Your task to perform on an android device: change the clock style Image 0: 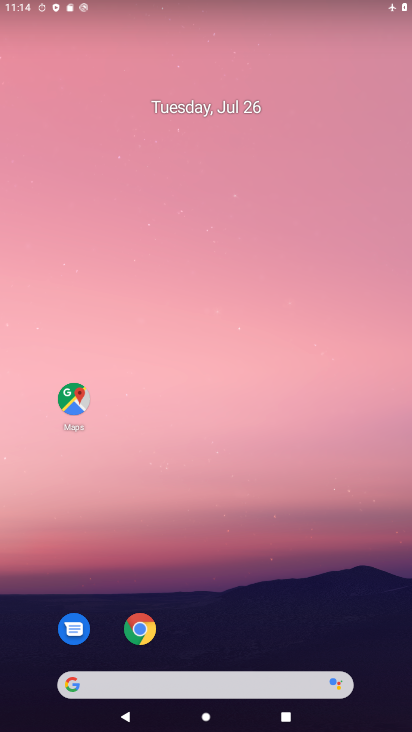
Step 0: drag from (358, 607) to (163, 50)
Your task to perform on an android device: change the clock style Image 1: 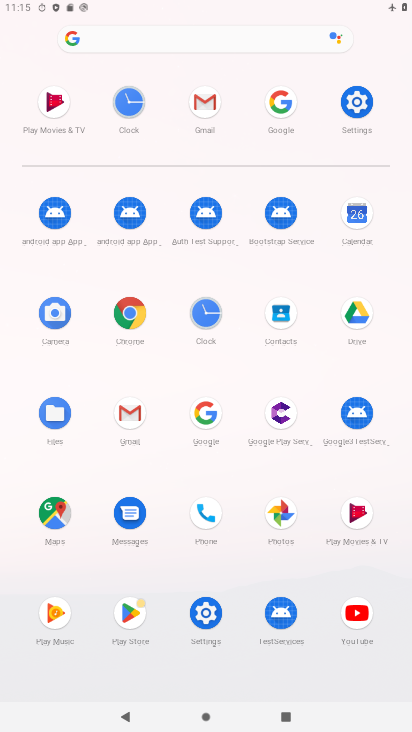
Step 1: click (202, 323)
Your task to perform on an android device: change the clock style Image 2: 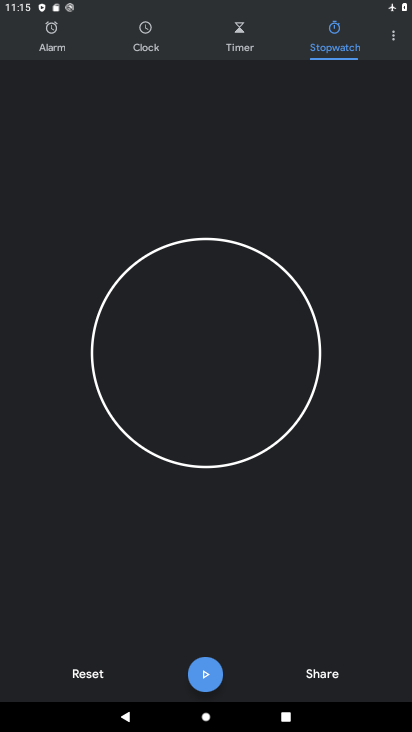
Step 2: click (391, 35)
Your task to perform on an android device: change the clock style Image 3: 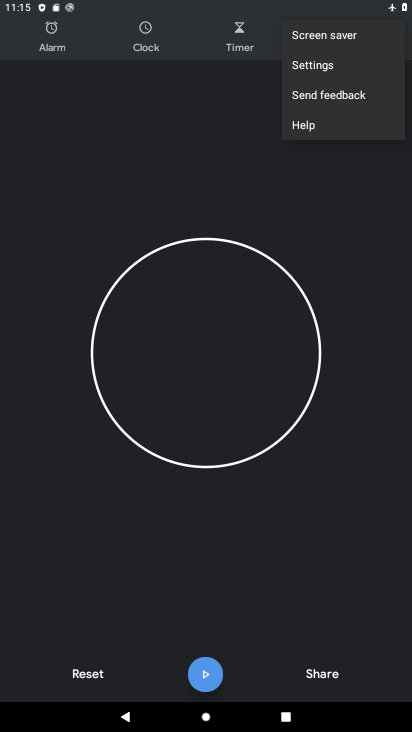
Step 3: click (301, 71)
Your task to perform on an android device: change the clock style Image 4: 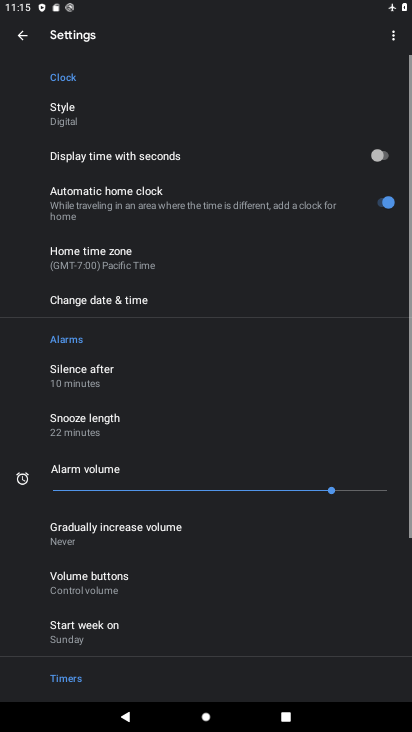
Step 4: click (65, 112)
Your task to perform on an android device: change the clock style Image 5: 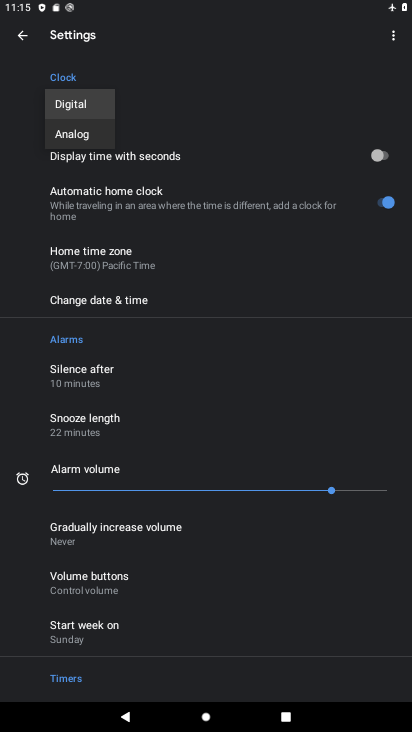
Step 5: click (85, 138)
Your task to perform on an android device: change the clock style Image 6: 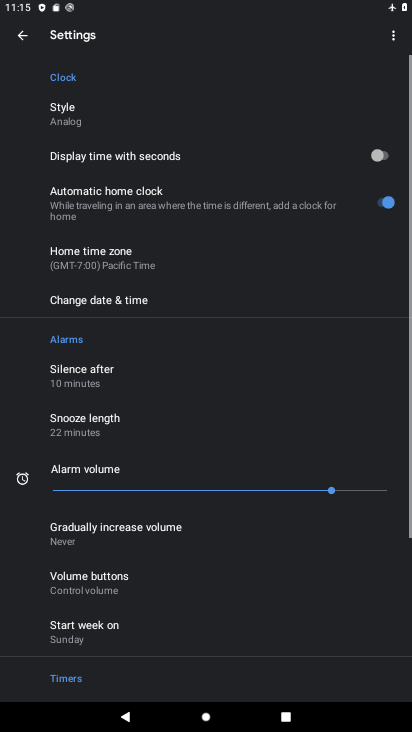
Step 6: task complete